Your task to perform on an android device: Is it going to rain today? Image 0: 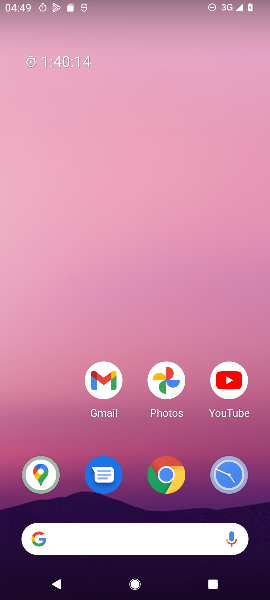
Step 0: click (125, 537)
Your task to perform on an android device: Is it going to rain today? Image 1: 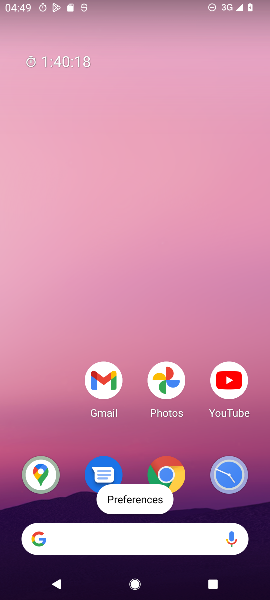
Step 1: click (153, 536)
Your task to perform on an android device: Is it going to rain today? Image 2: 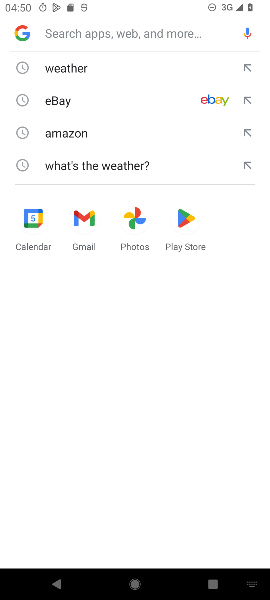
Step 2: click (130, 58)
Your task to perform on an android device: Is it going to rain today? Image 3: 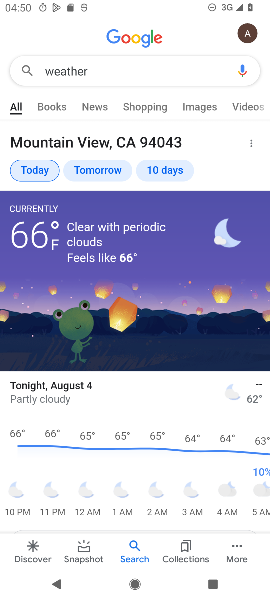
Step 3: task complete